Your task to perform on an android device: delete browsing data in the chrome app Image 0: 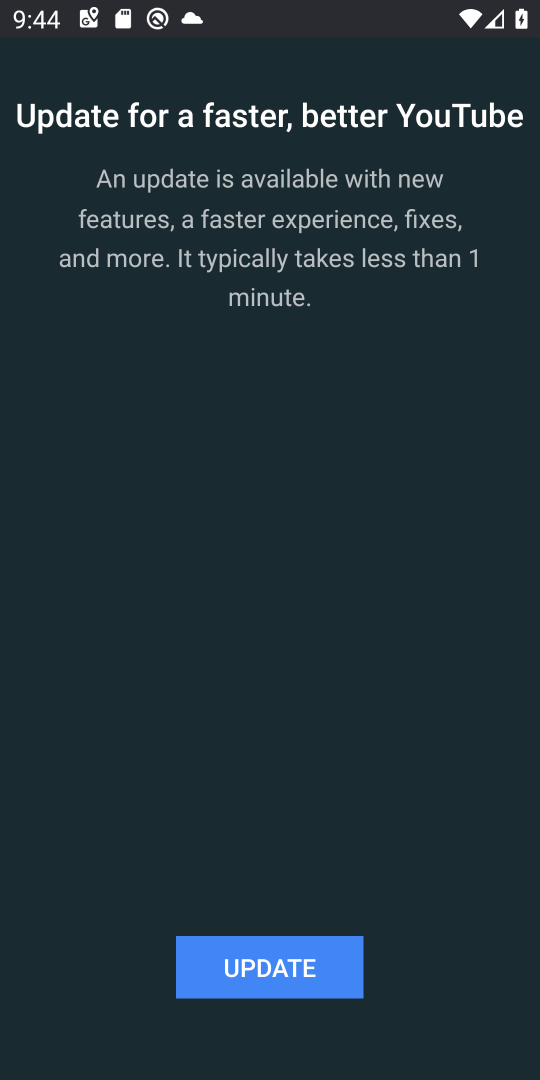
Step 0: press home button
Your task to perform on an android device: delete browsing data in the chrome app Image 1: 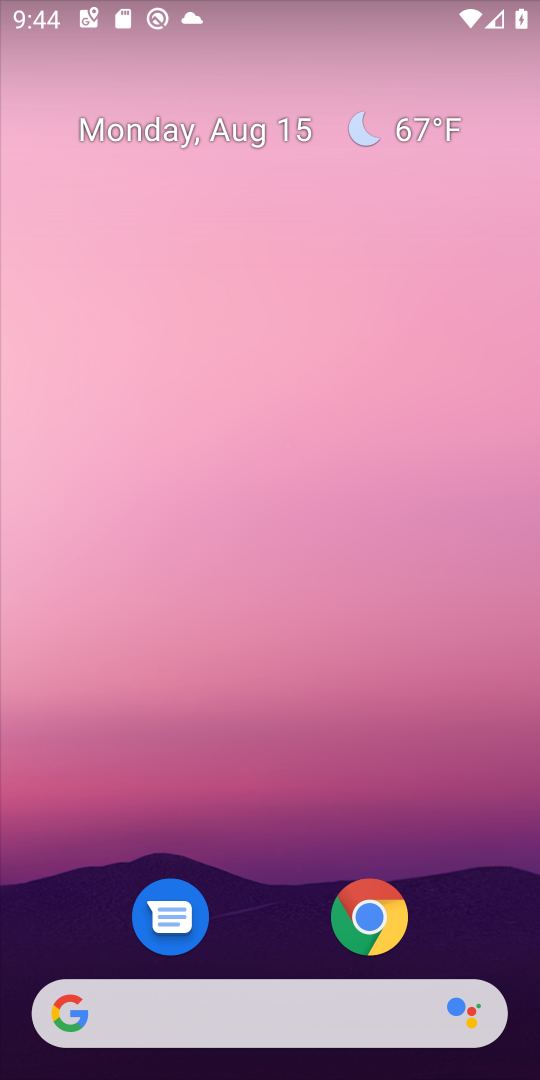
Step 1: click (378, 916)
Your task to perform on an android device: delete browsing data in the chrome app Image 2: 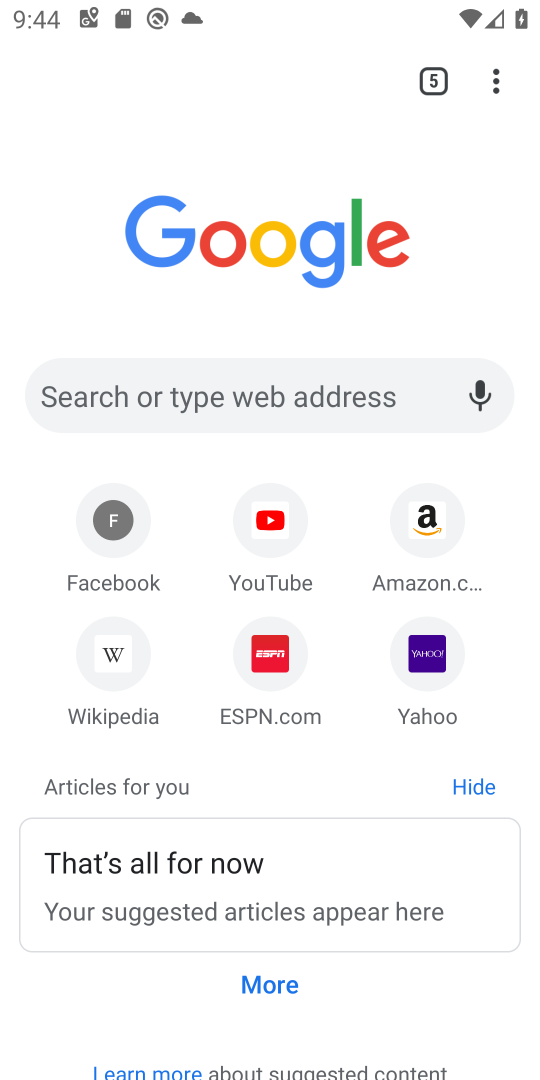
Step 2: click (494, 77)
Your task to perform on an android device: delete browsing data in the chrome app Image 3: 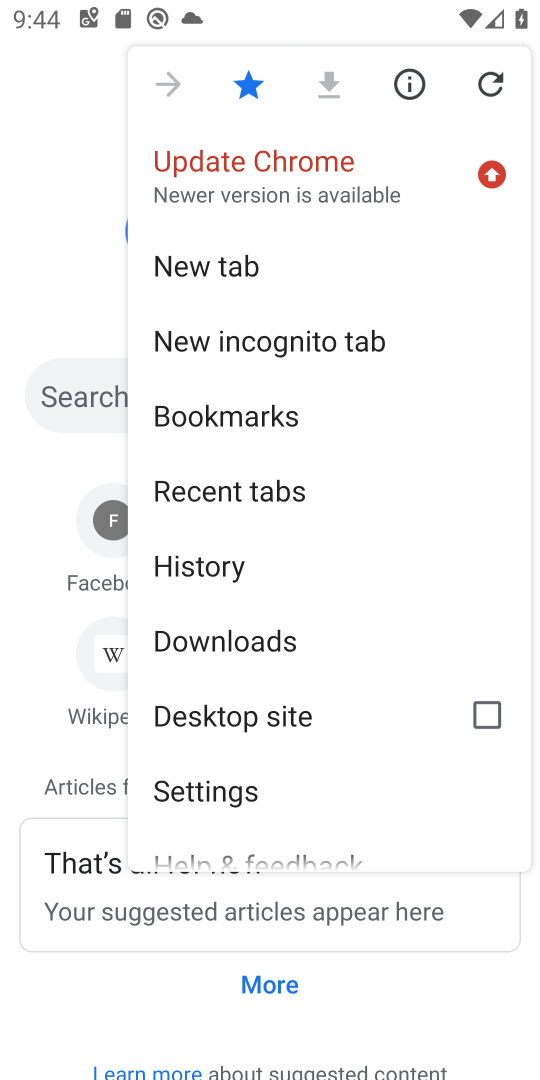
Step 3: click (211, 556)
Your task to perform on an android device: delete browsing data in the chrome app Image 4: 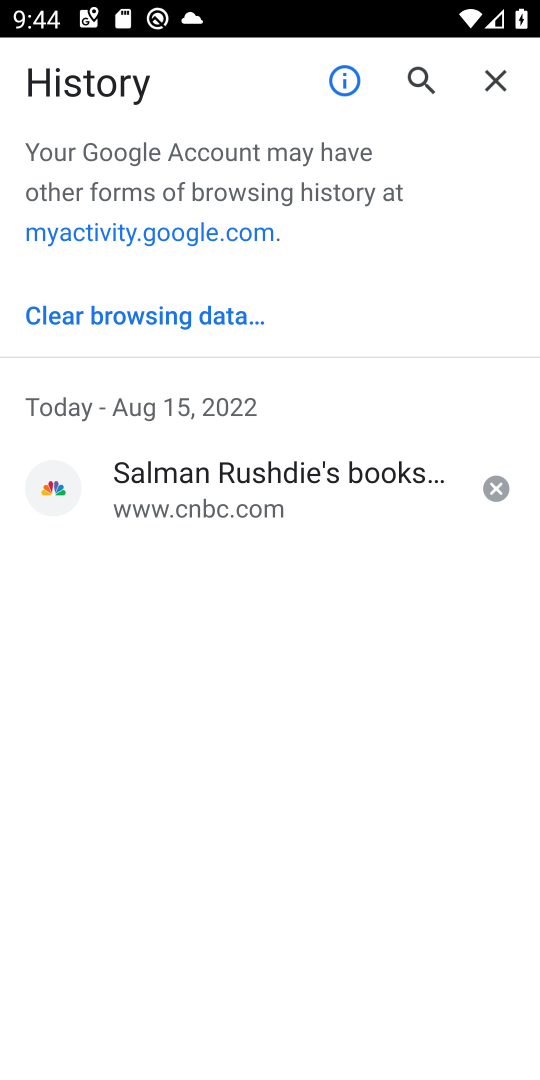
Step 4: click (180, 311)
Your task to perform on an android device: delete browsing data in the chrome app Image 5: 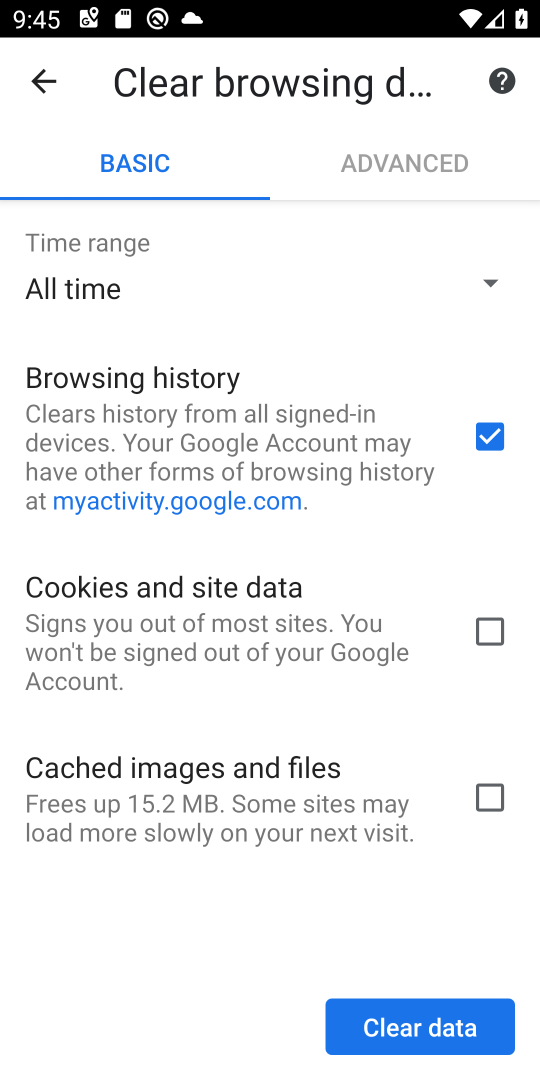
Step 5: click (493, 628)
Your task to perform on an android device: delete browsing data in the chrome app Image 6: 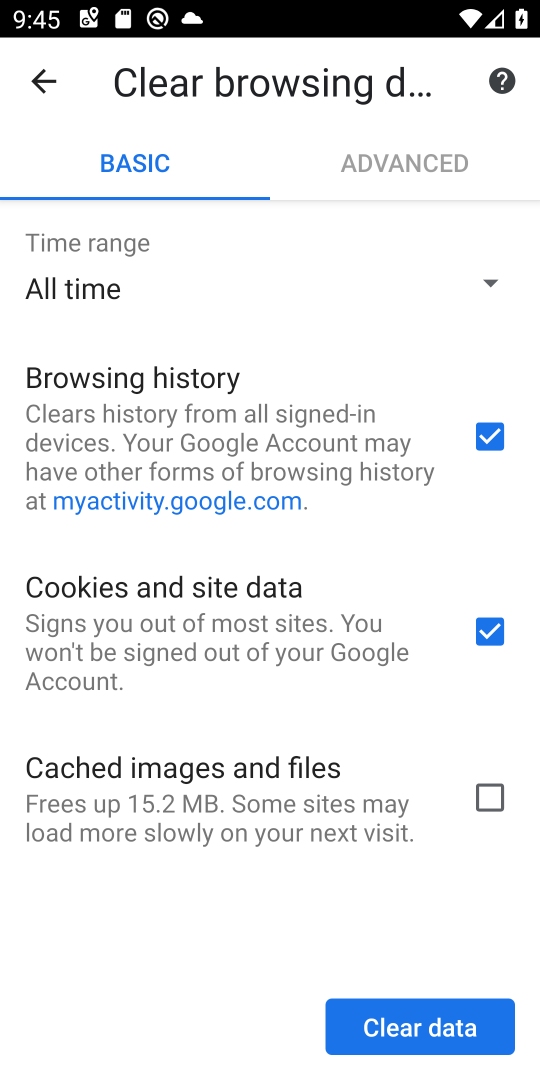
Step 6: click (484, 797)
Your task to perform on an android device: delete browsing data in the chrome app Image 7: 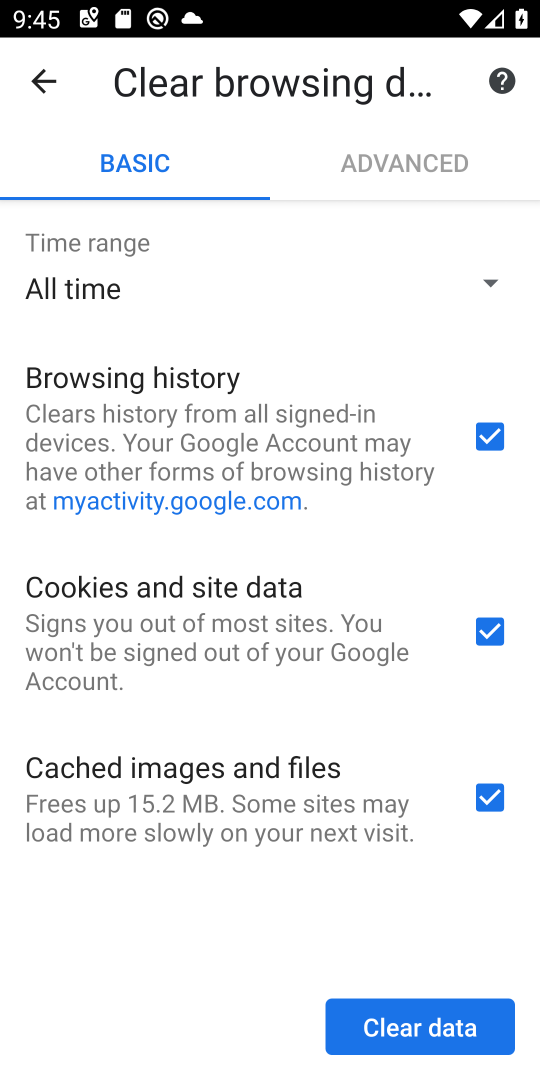
Step 7: click (458, 1025)
Your task to perform on an android device: delete browsing data in the chrome app Image 8: 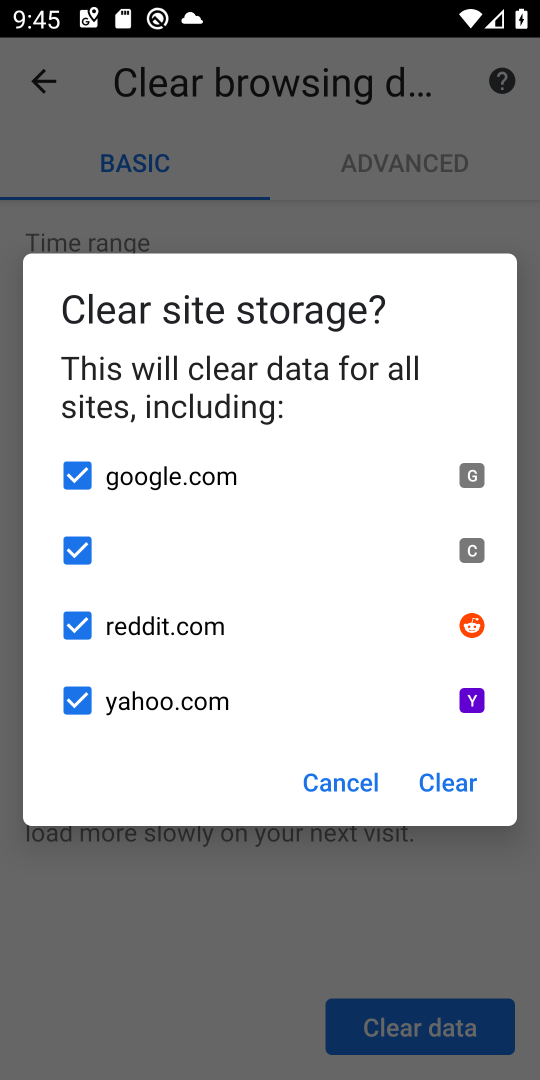
Step 8: click (468, 777)
Your task to perform on an android device: delete browsing data in the chrome app Image 9: 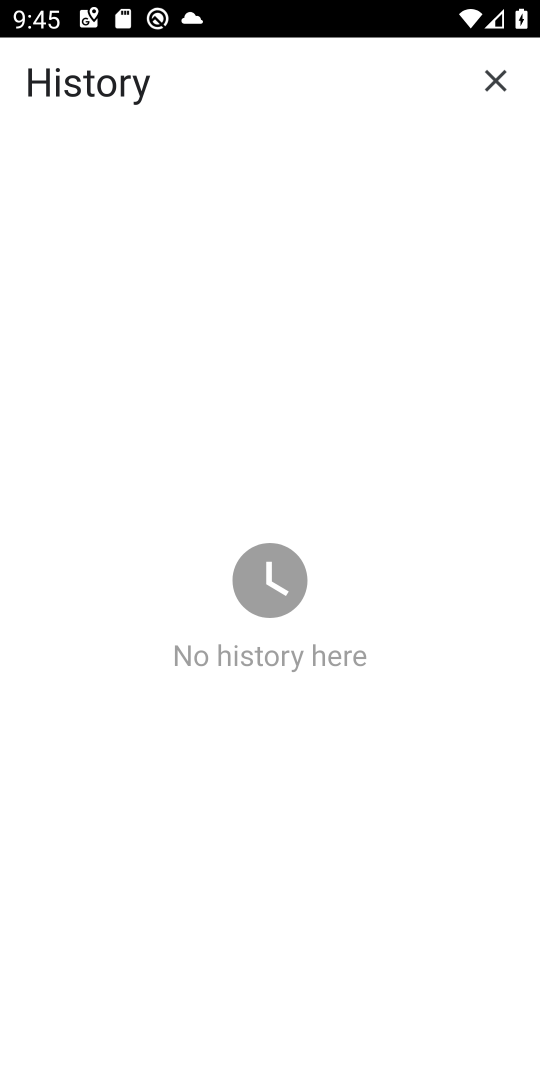
Step 9: task complete